Your task to perform on an android device: search for starred emails in the gmail app Image 0: 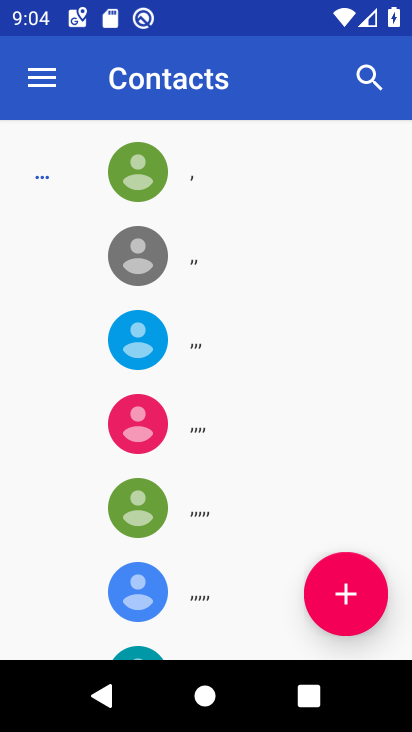
Step 0: press home button
Your task to perform on an android device: search for starred emails in the gmail app Image 1: 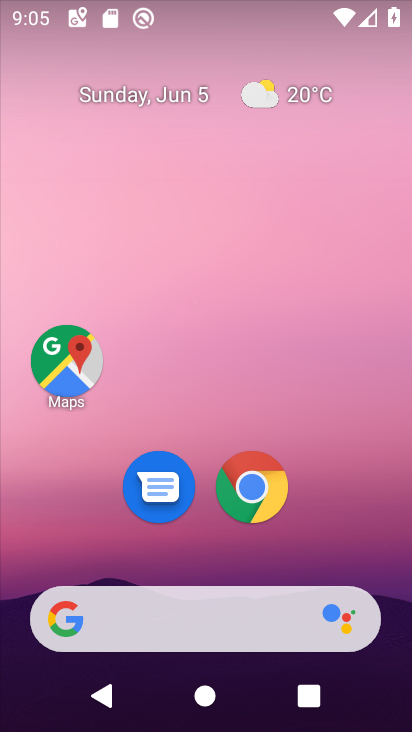
Step 1: drag from (328, 573) to (312, 260)
Your task to perform on an android device: search for starred emails in the gmail app Image 2: 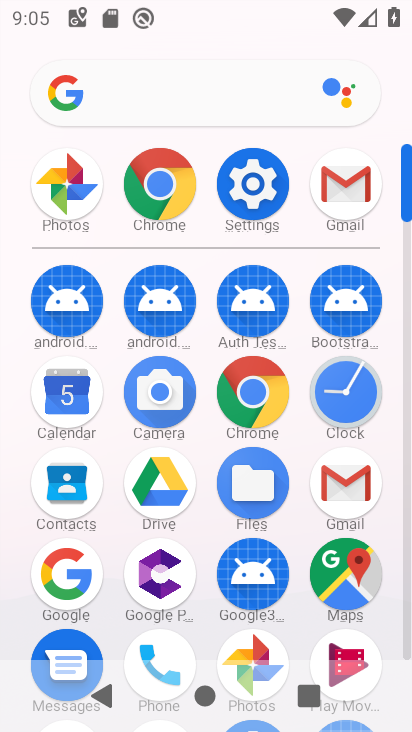
Step 2: click (338, 175)
Your task to perform on an android device: search for starred emails in the gmail app Image 3: 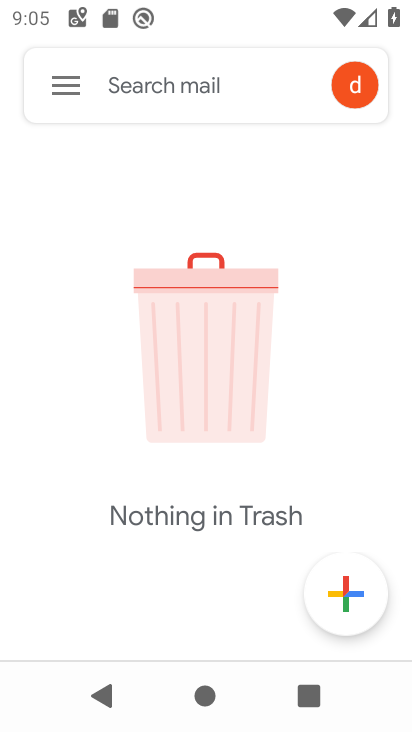
Step 3: click (51, 84)
Your task to perform on an android device: search for starred emails in the gmail app Image 4: 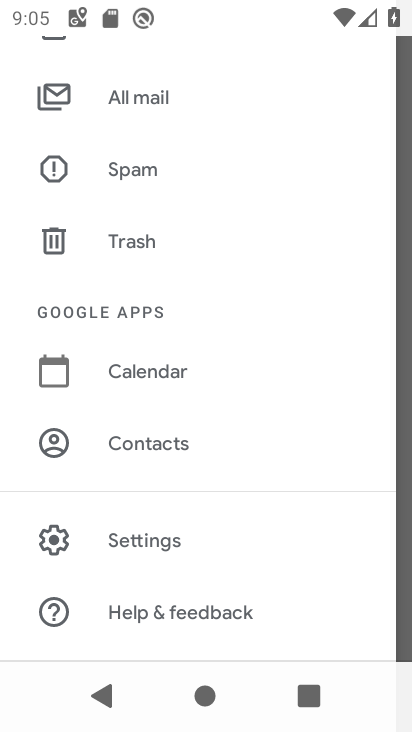
Step 4: click (151, 183)
Your task to perform on an android device: search for starred emails in the gmail app Image 5: 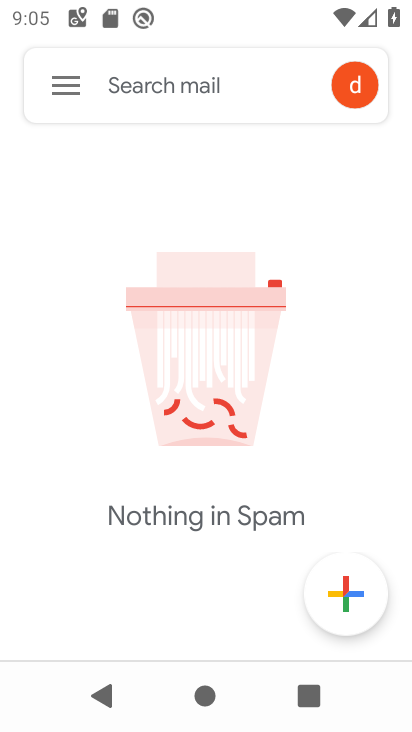
Step 5: click (45, 76)
Your task to perform on an android device: search for starred emails in the gmail app Image 6: 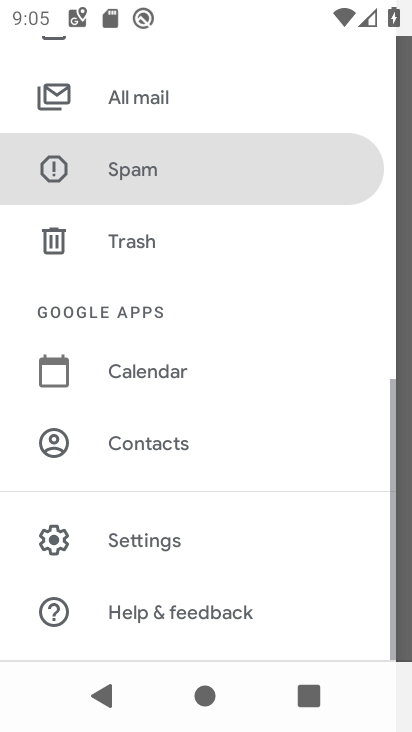
Step 6: drag from (198, 121) to (192, 587)
Your task to perform on an android device: search for starred emails in the gmail app Image 7: 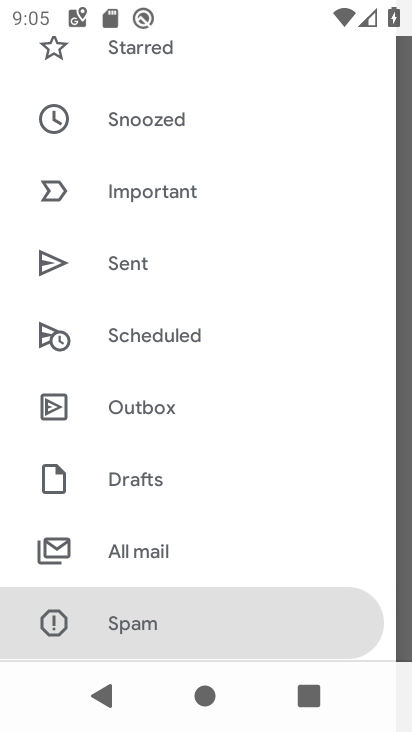
Step 7: click (163, 47)
Your task to perform on an android device: search for starred emails in the gmail app Image 8: 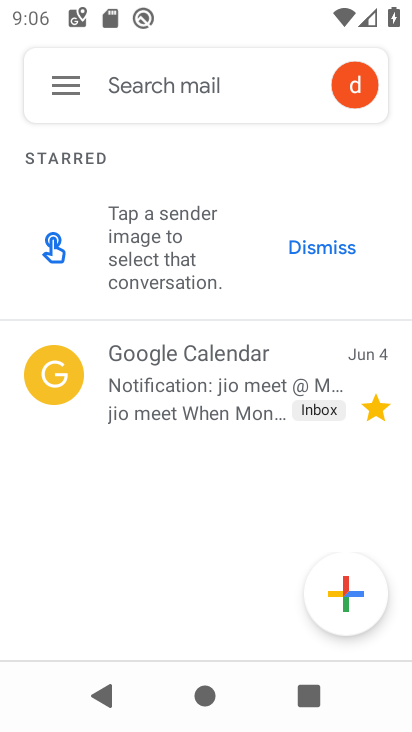
Step 8: task complete